Your task to perform on an android device: snooze an email in the gmail app Image 0: 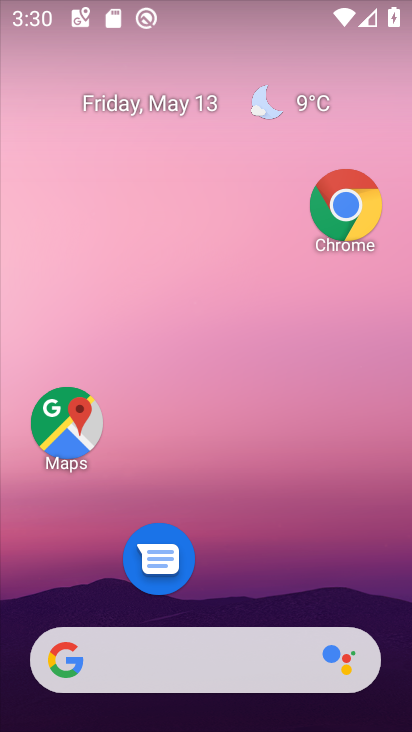
Step 0: drag from (196, 505) to (290, 80)
Your task to perform on an android device: snooze an email in the gmail app Image 1: 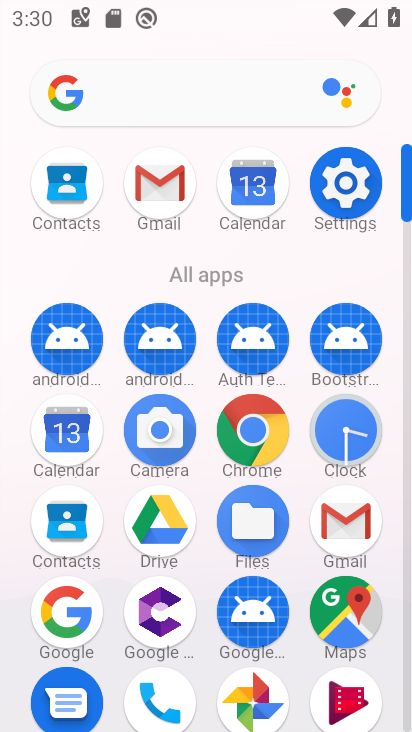
Step 1: click (167, 191)
Your task to perform on an android device: snooze an email in the gmail app Image 2: 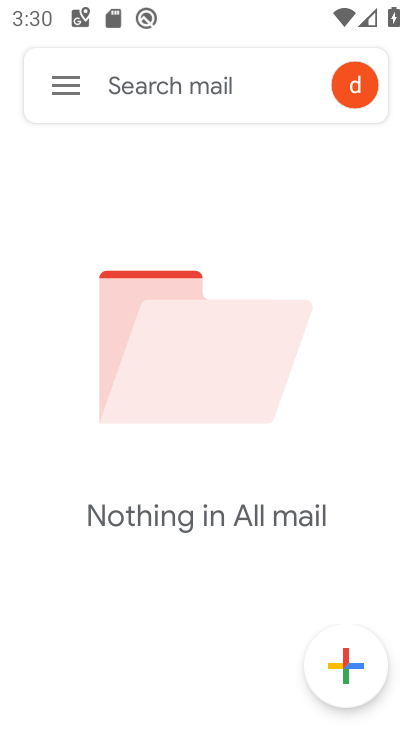
Step 2: task complete